Your task to perform on an android device: set the timer Image 0: 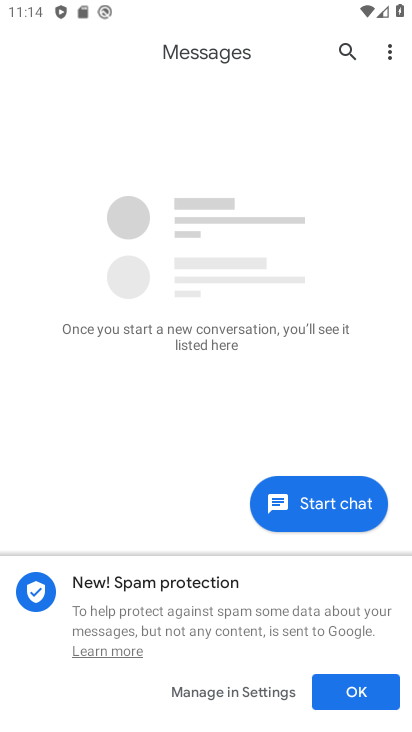
Step 0: press home button
Your task to perform on an android device: set the timer Image 1: 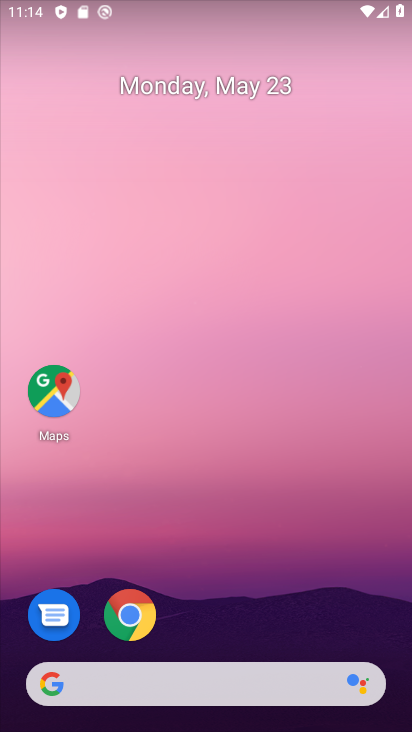
Step 1: drag from (191, 624) to (178, 104)
Your task to perform on an android device: set the timer Image 2: 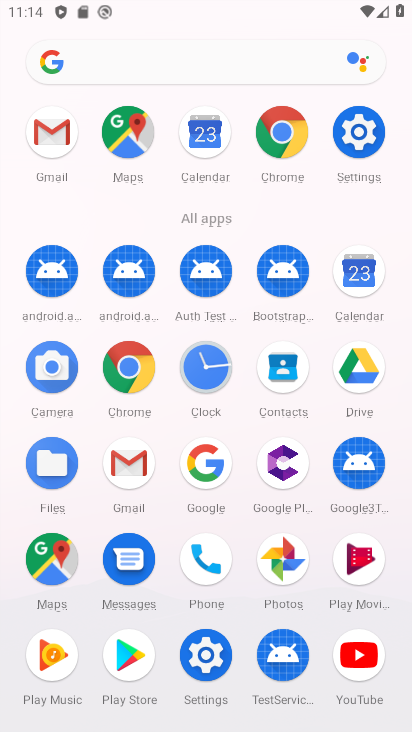
Step 2: click (200, 372)
Your task to perform on an android device: set the timer Image 3: 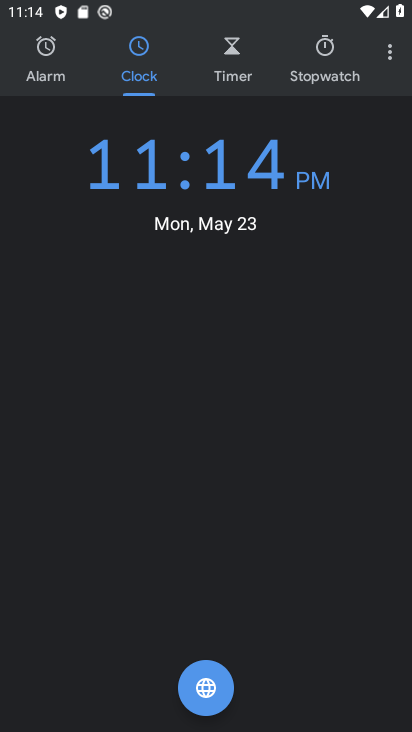
Step 3: click (245, 68)
Your task to perform on an android device: set the timer Image 4: 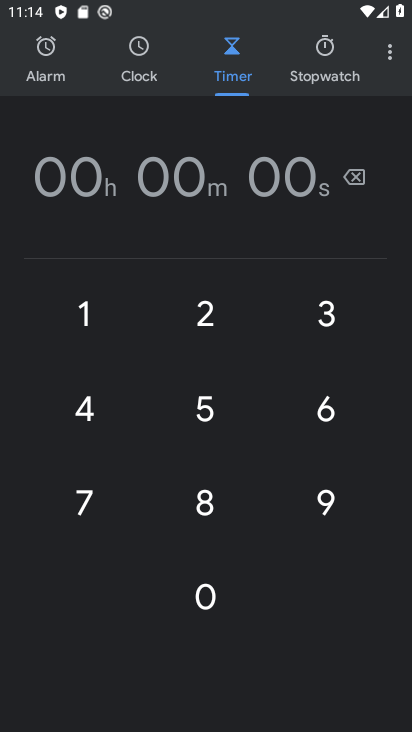
Step 4: click (201, 419)
Your task to perform on an android device: set the timer Image 5: 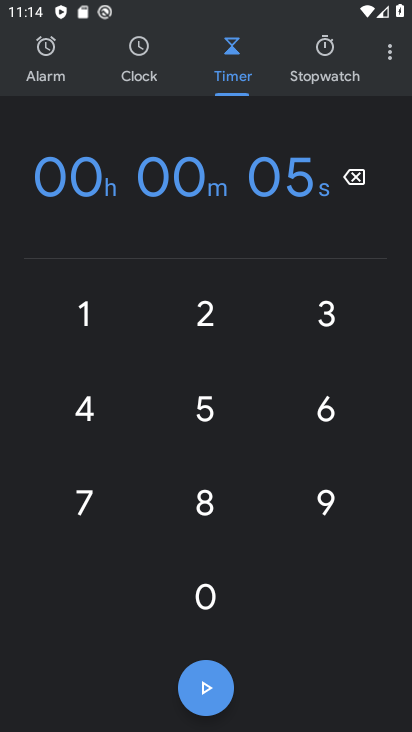
Step 5: click (200, 675)
Your task to perform on an android device: set the timer Image 6: 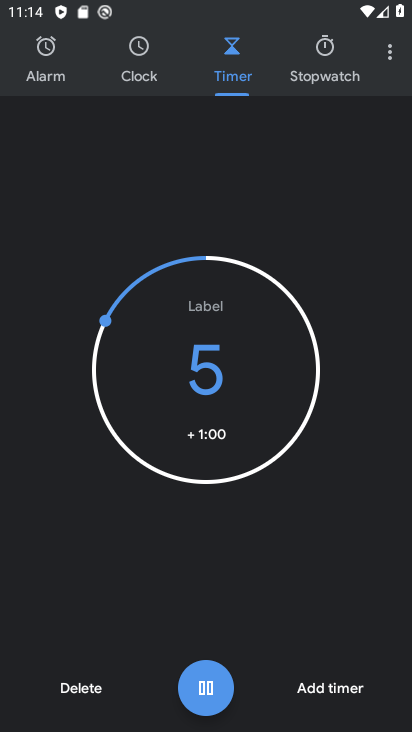
Step 6: task complete